Your task to perform on an android device: find photos in the google photos app Image 0: 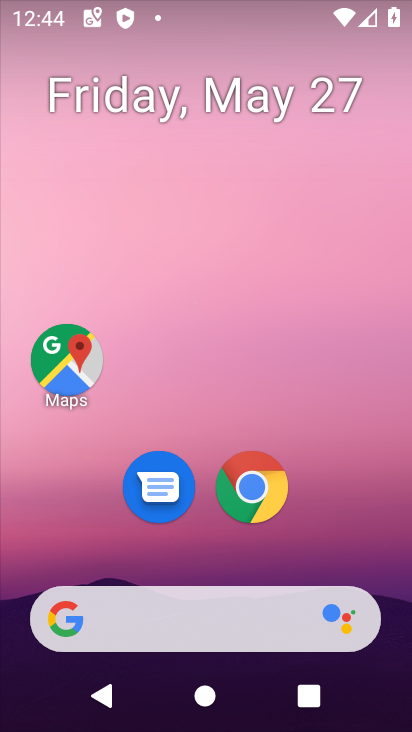
Step 0: drag from (177, 511) to (209, 43)
Your task to perform on an android device: find photos in the google photos app Image 1: 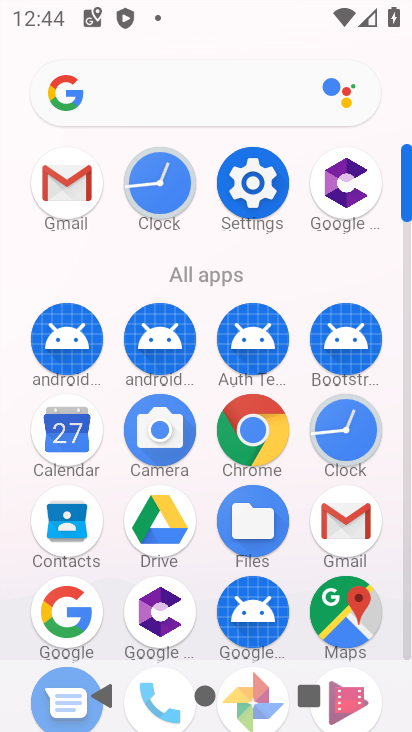
Step 1: drag from (216, 510) to (257, 142)
Your task to perform on an android device: find photos in the google photos app Image 2: 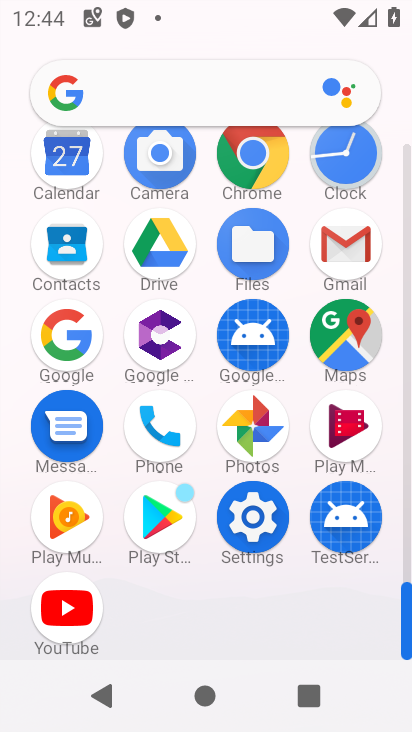
Step 2: click (262, 421)
Your task to perform on an android device: find photos in the google photos app Image 3: 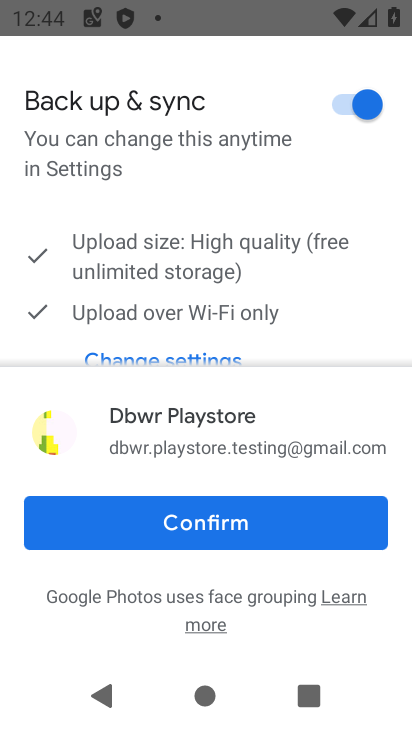
Step 3: click (237, 520)
Your task to perform on an android device: find photos in the google photos app Image 4: 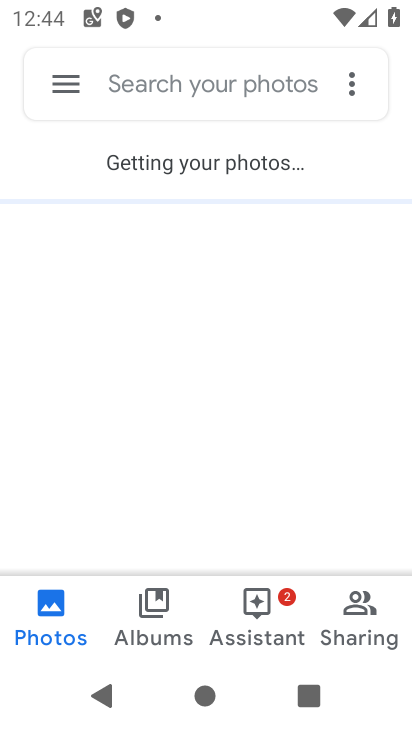
Step 4: task complete